Your task to perform on an android device: snooze an email in the gmail app Image 0: 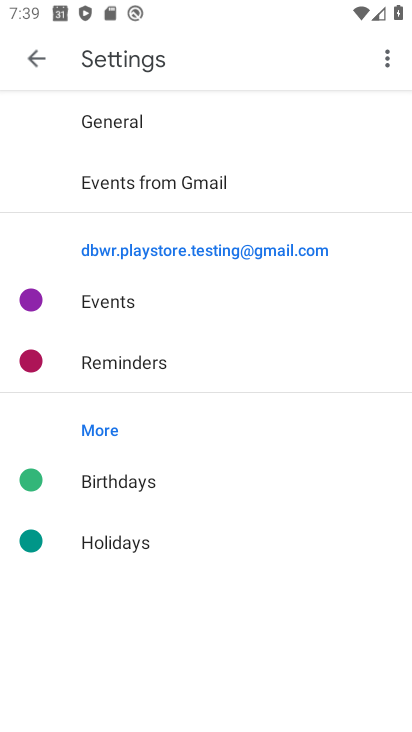
Step 0: press home button
Your task to perform on an android device: snooze an email in the gmail app Image 1: 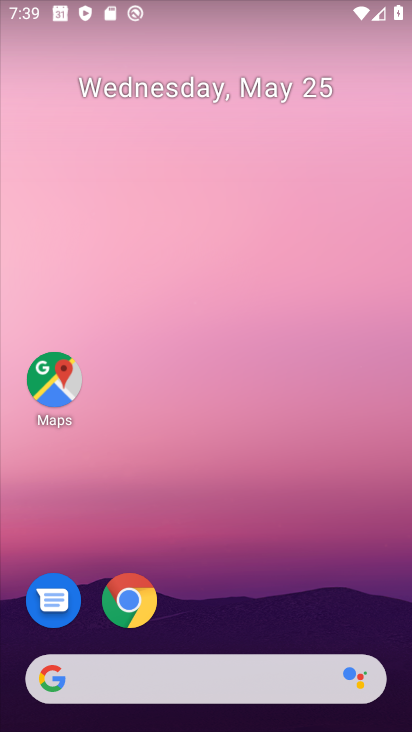
Step 1: drag from (338, 537) to (265, 114)
Your task to perform on an android device: snooze an email in the gmail app Image 2: 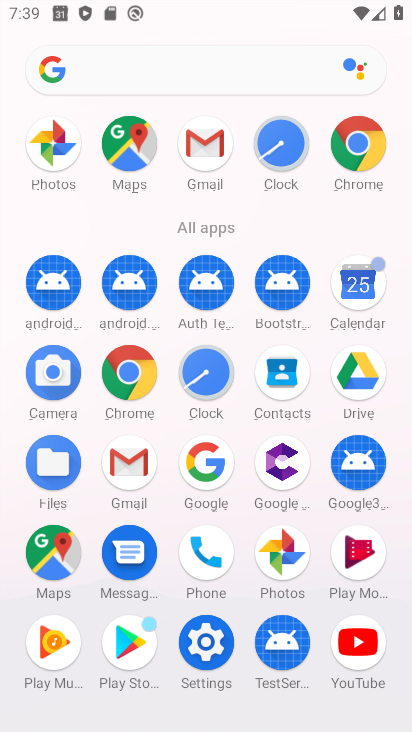
Step 2: click (218, 127)
Your task to perform on an android device: snooze an email in the gmail app Image 3: 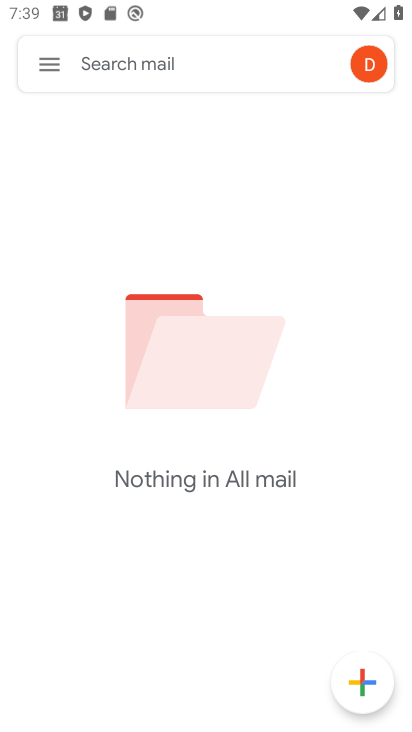
Step 3: click (43, 69)
Your task to perform on an android device: snooze an email in the gmail app Image 4: 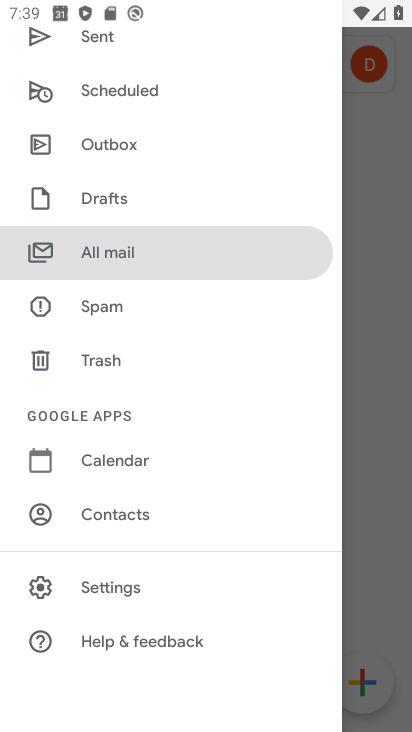
Step 4: click (123, 260)
Your task to perform on an android device: snooze an email in the gmail app Image 5: 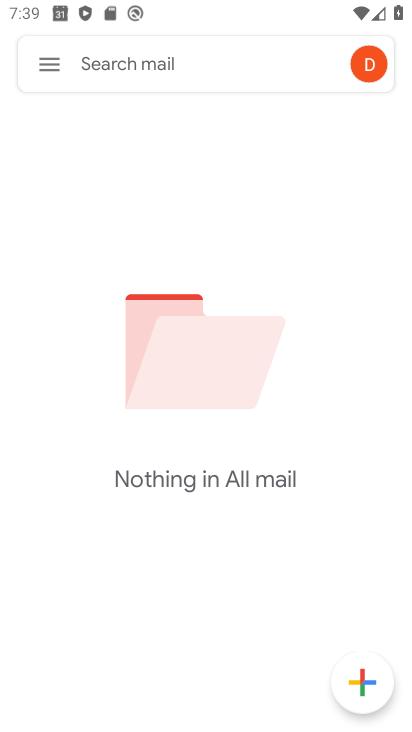
Step 5: task complete